Your task to perform on an android device: turn off data saver in the chrome app Image 0: 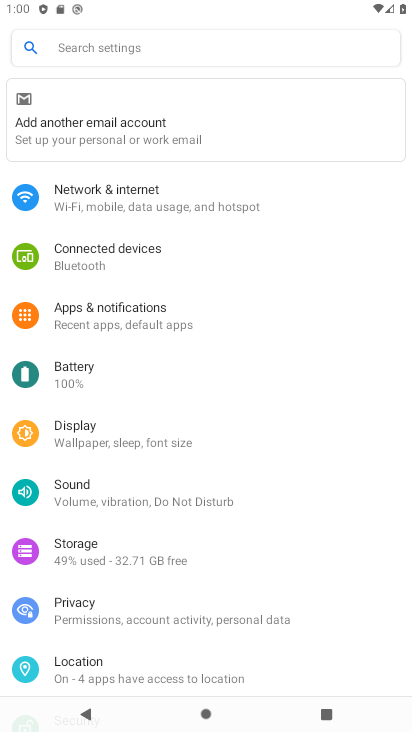
Step 0: press back button
Your task to perform on an android device: turn off data saver in the chrome app Image 1: 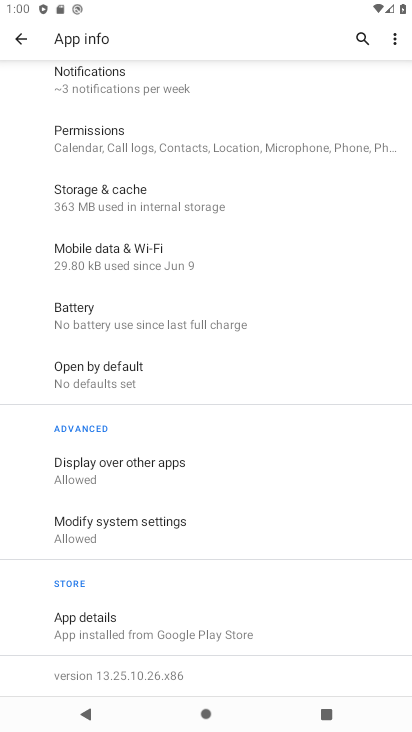
Step 1: press back button
Your task to perform on an android device: turn off data saver in the chrome app Image 2: 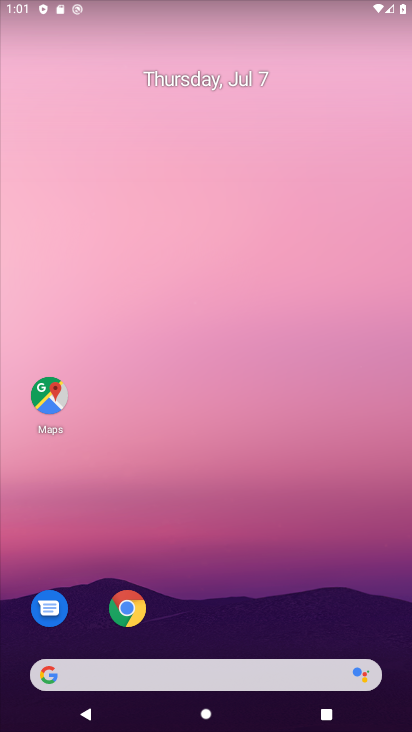
Step 2: click (119, 616)
Your task to perform on an android device: turn off data saver in the chrome app Image 3: 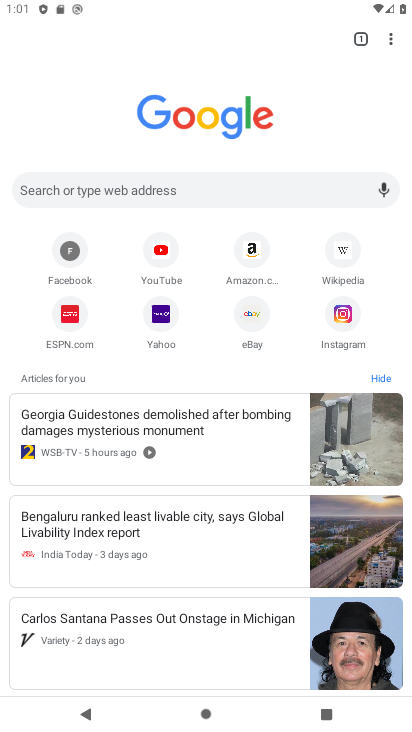
Step 3: drag from (388, 35) to (254, 319)
Your task to perform on an android device: turn off data saver in the chrome app Image 4: 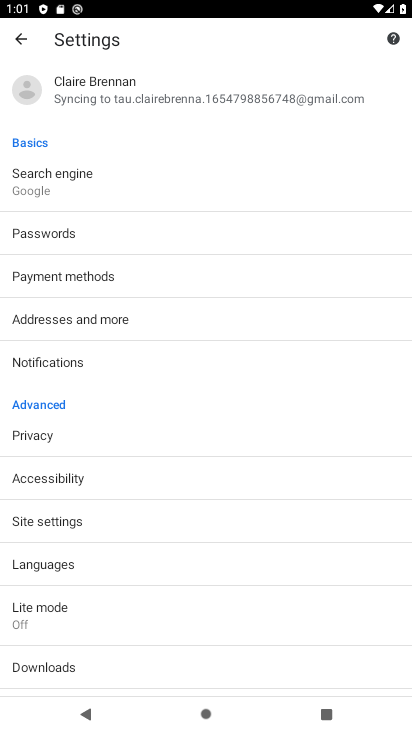
Step 4: click (62, 610)
Your task to perform on an android device: turn off data saver in the chrome app Image 5: 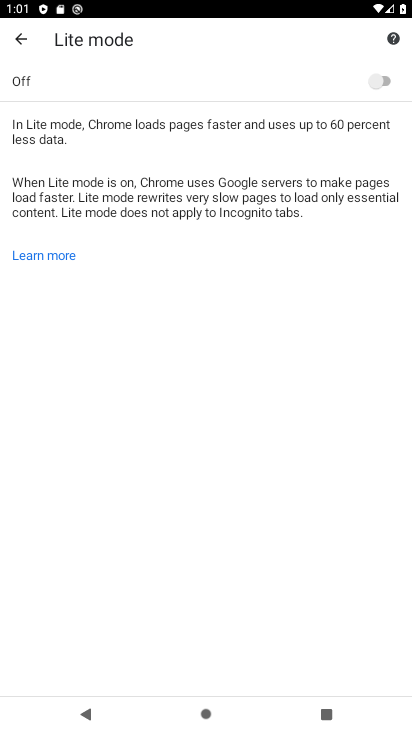
Step 5: task complete